Your task to perform on an android device: toggle data saver in the chrome app Image 0: 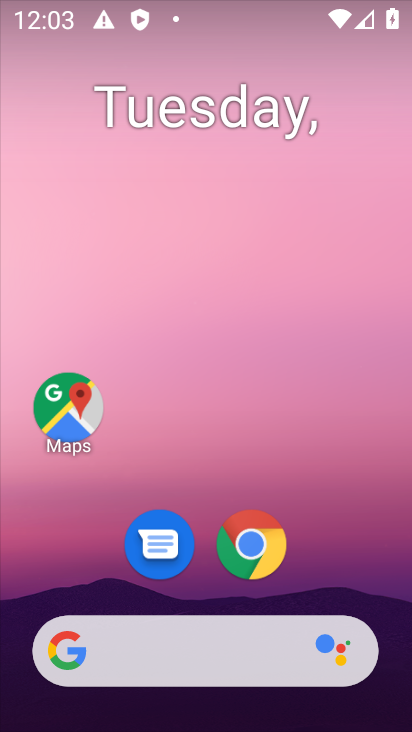
Step 0: drag from (326, 90) to (329, 6)
Your task to perform on an android device: toggle data saver in the chrome app Image 1: 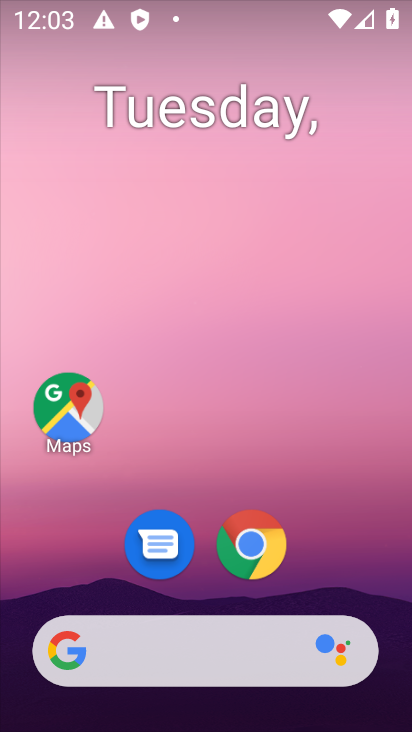
Step 1: drag from (341, 546) to (254, 63)
Your task to perform on an android device: toggle data saver in the chrome app Image 2: 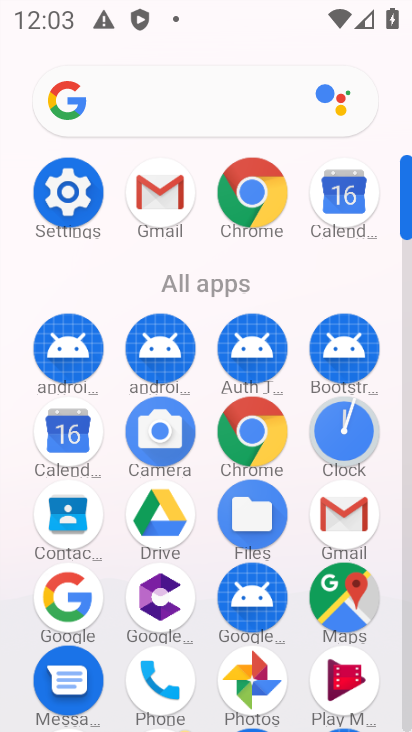
Step 2: click (263, 432)
Your task to perform on an android device: toggle data saver in the chrome app Image 3: 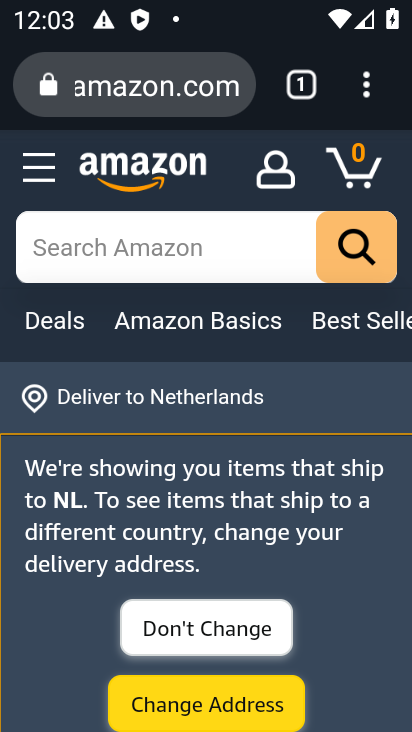
Step 3: drag from (372, 65) to (141, 574)
Your task to perform on an android device: toggle data saver in the chrome app Image 4: 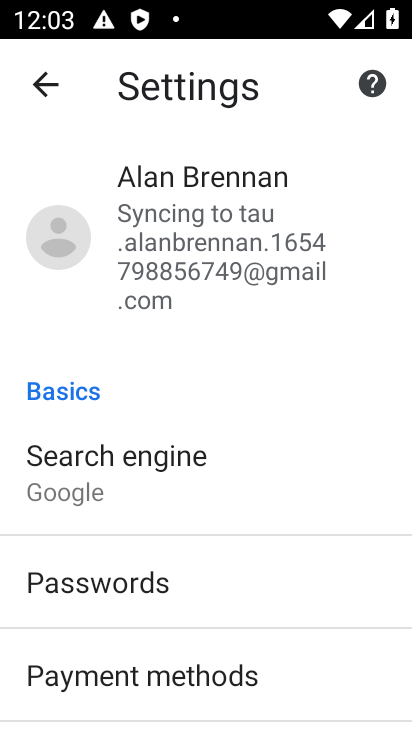
Step 4: drag from (230, 522) to (228, 92)
Your task to perform on an android device: toggle data saver in the chrome app Image 5: 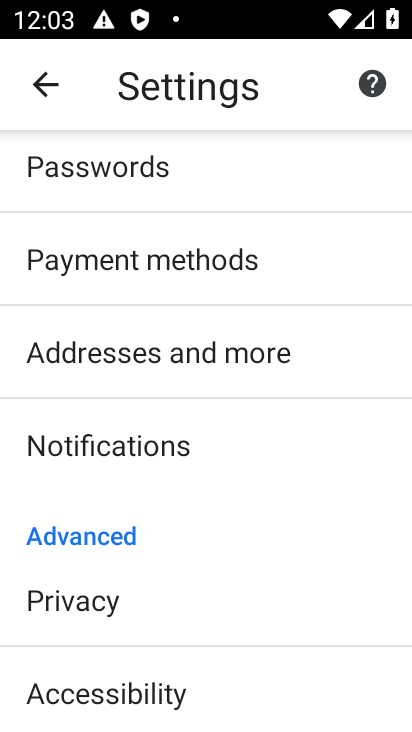
Step 5: drag from (207, 585) to (258, 177)
Your task to perform on an android device: toggle data saver in the chrome app Image 6: 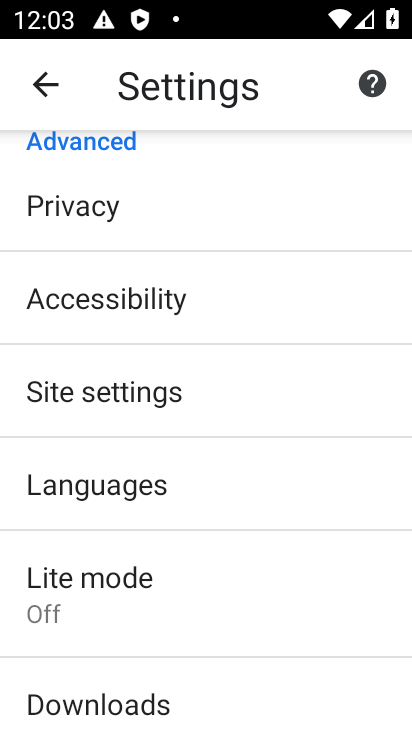
Step 6: drag from (233, 633) to (241, 413)
Your task to perform on an android device: toggle data saver in the chrome app Image 7: 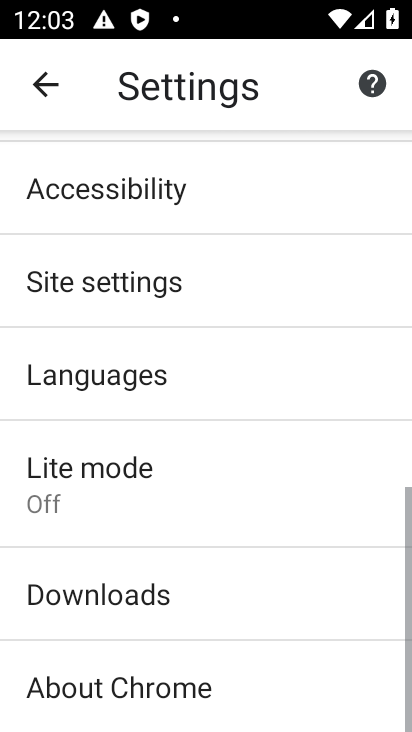
Step 7: click (134, 465)
Your task to perform on an android device: toggle data saver in the chrome app Image 8: 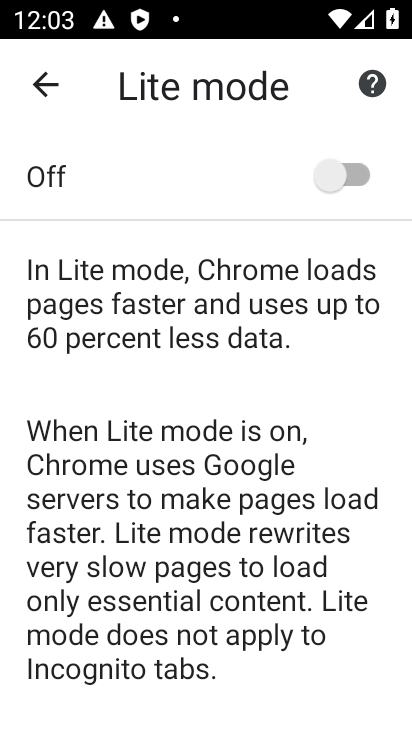
Step 8: click (344, 168)
Your task to perform on an android device: toggle data saver in the chrome app Image 9: 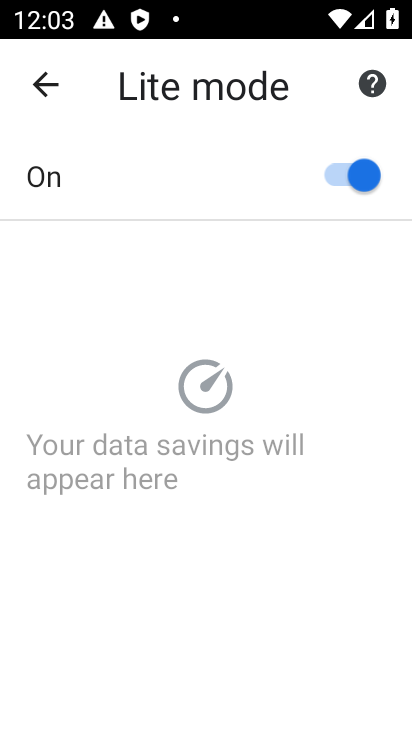
Step 9: task complete